Your task to perform on an android device: show emergency info Image 0: 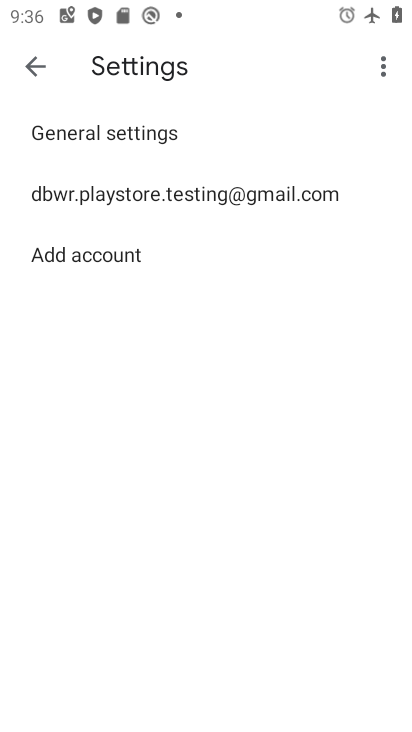
Step 0: press home button
Your task to perform on an android device: show emergency info Image 1: 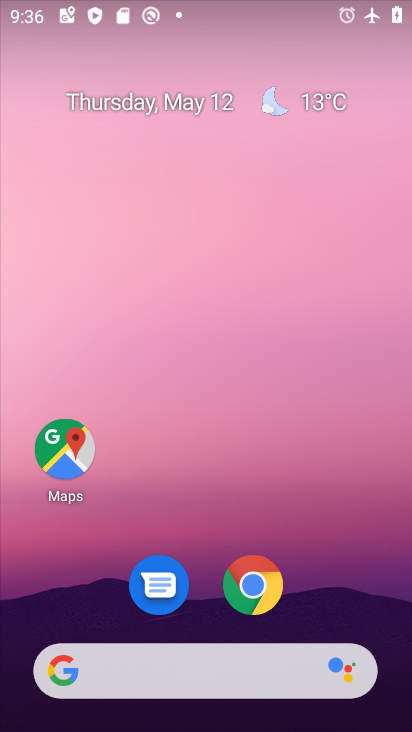
Step 1: drag from (166, 464) to (185, 108)
Your task to perform on an android device: show emergency info Image 2: 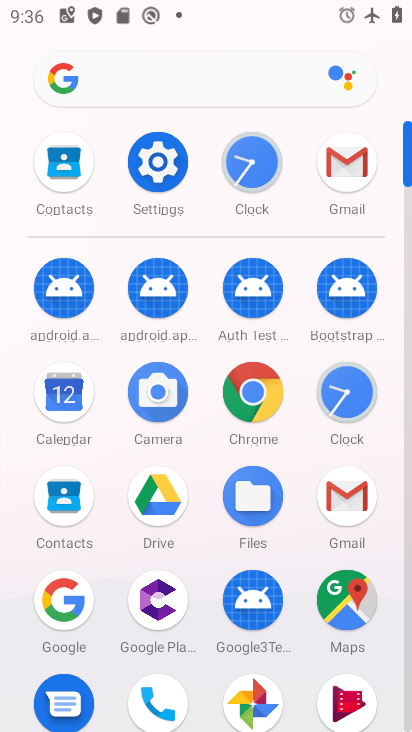
Step 2: click (164, 166)
Your task to perform on an android device: show emergency info Image 3: 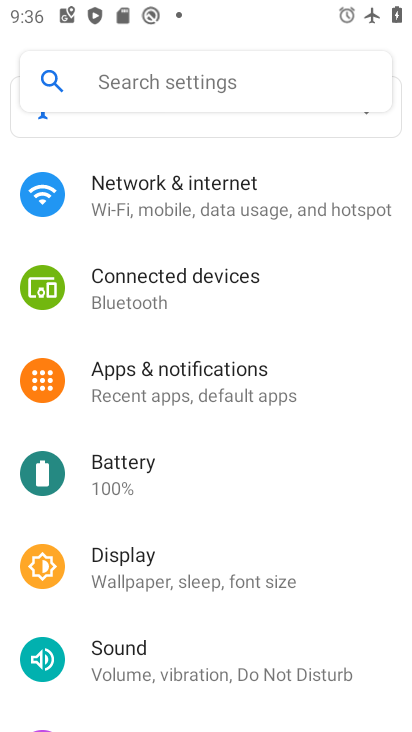
Step 3: drag from (218, 552) to (262, 133)
Your task to perform on an android device: show emergency info Image 4: 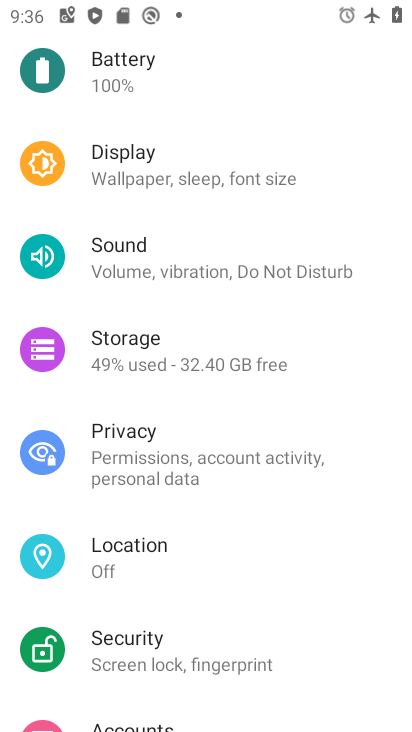
Step 4: drag from (216, 519) to (210, 132)
Your task to perform on an android device: show emergency info Image 5: 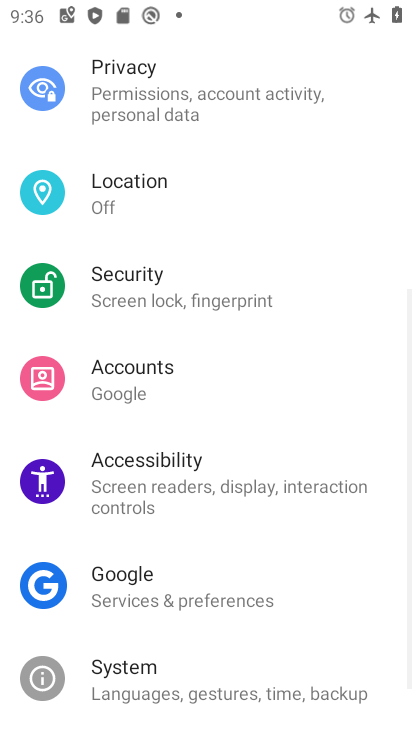
Step 5: drag from (190, 421) to (196, 113)
Your task to perform on an android device: show emergency info Image 6: 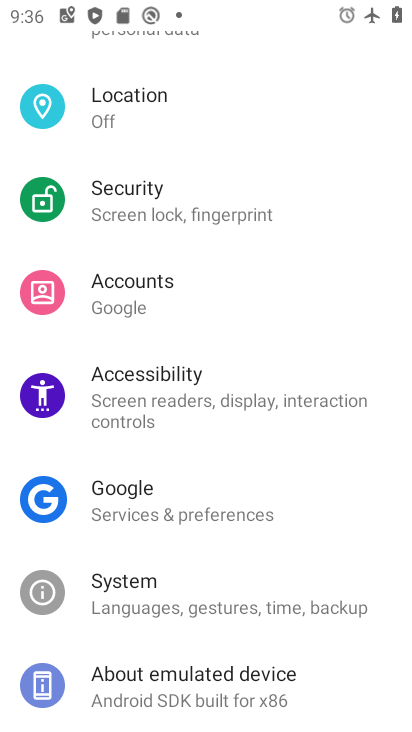
Step 6: click (175, 677)
Your task to perform on an android device: show emergency info Image 7: 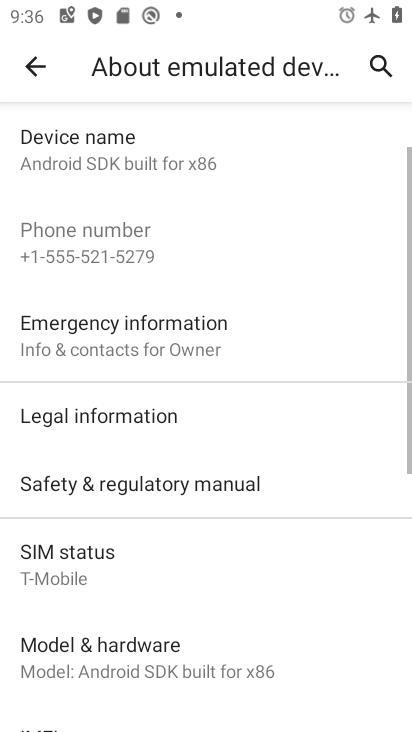
Step 7: click (158, 342)
Your task to perform on an android device: show emergency info Image 8: 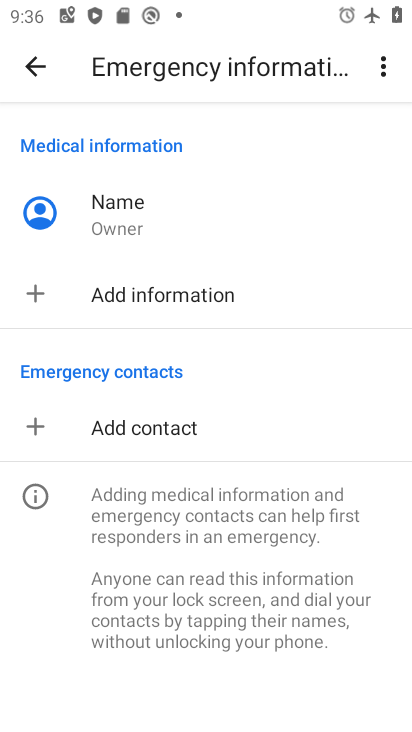
Step 8: task complete